Your task to perform on an android device: turn on translation in the chrome app Image 0: 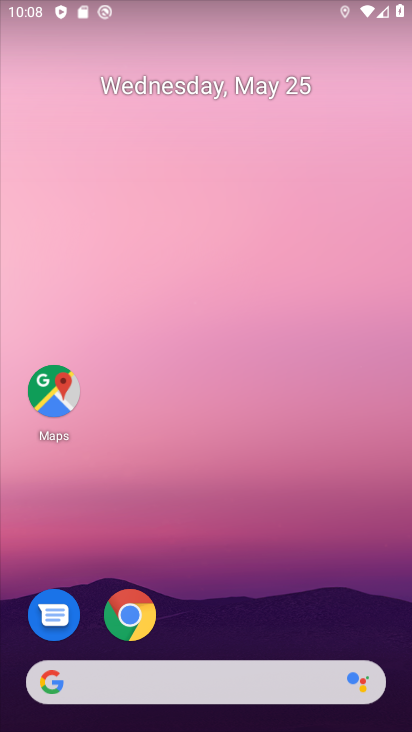
Step 0: click (55, 373)
Your task to perform on an android device: turn on translation in the chrome app Image 1: 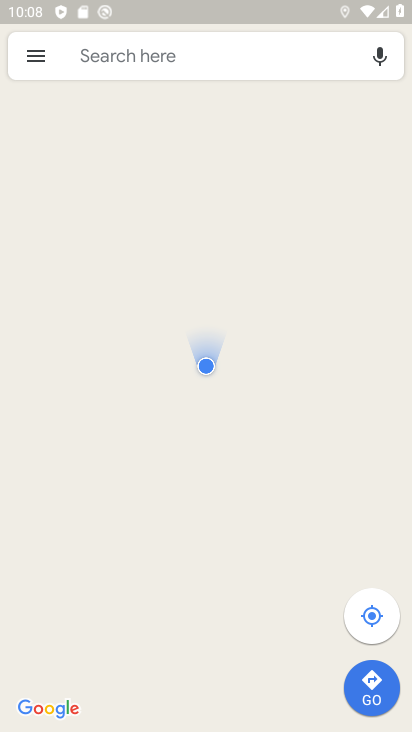
Step 1: press home button
Your task to perform on an android device: turn on translation in the chrome app Image 2: 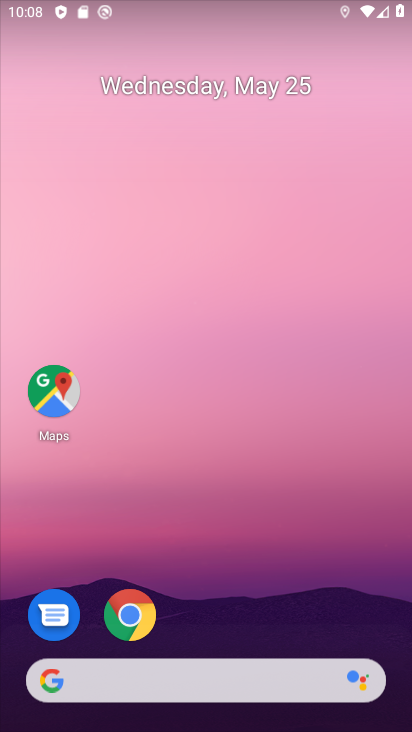
Step 2: click (141, 629)
Your task to perform on an android device: turn on translation in the chrome app Image 3: 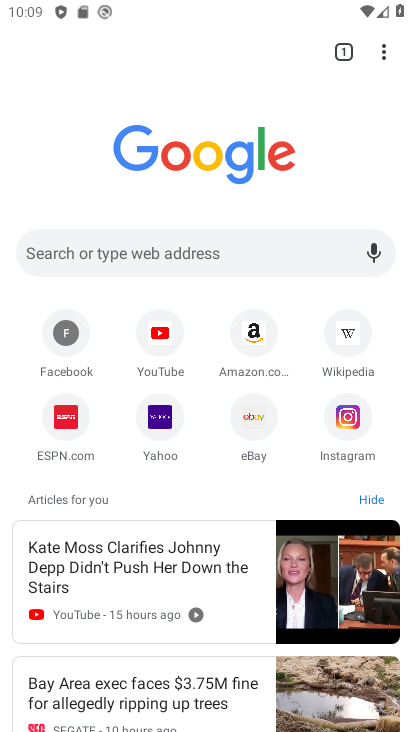
Step 3: click (391, 57)
Your task to perform on an android device: turn on translation in the chrome app Image 4: 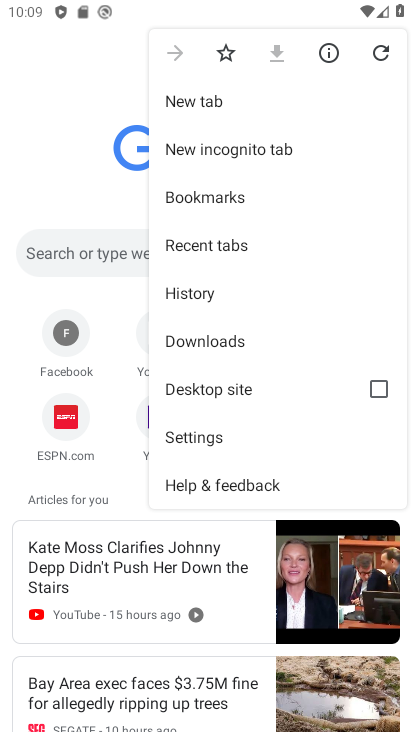
Step 4: click (187, 440)
Your task to perform on an android device: turn on translation in the chrome app Image 5: 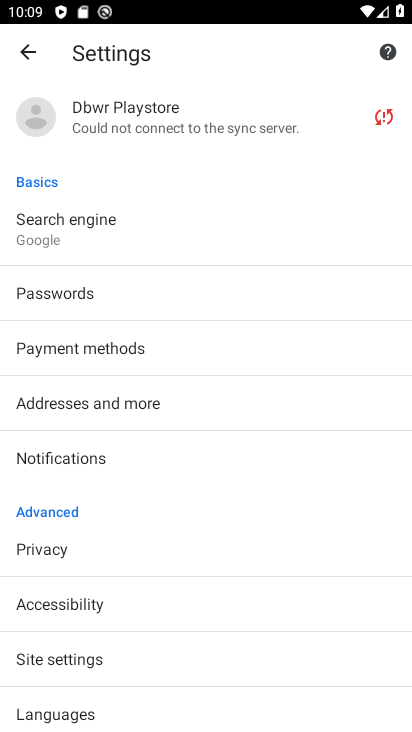
Step 5: click (79, 703)
Your task to perform on an android device: turn on translation in the chrome app Image 6: 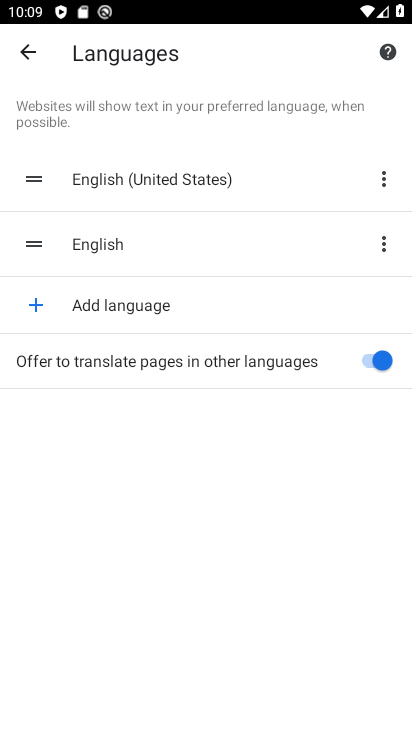
Step 6: task complete